Your task to perform on an android device: change the clock display to analog Image 0: 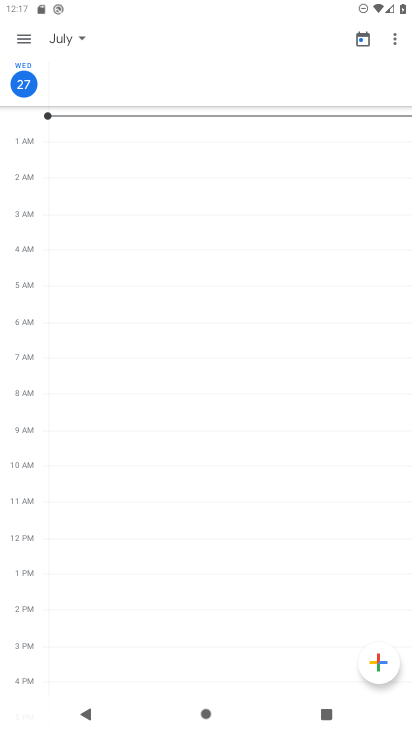
Step 0: press home button
Your task to perform on an android device: change the clock display to analog Image 1: 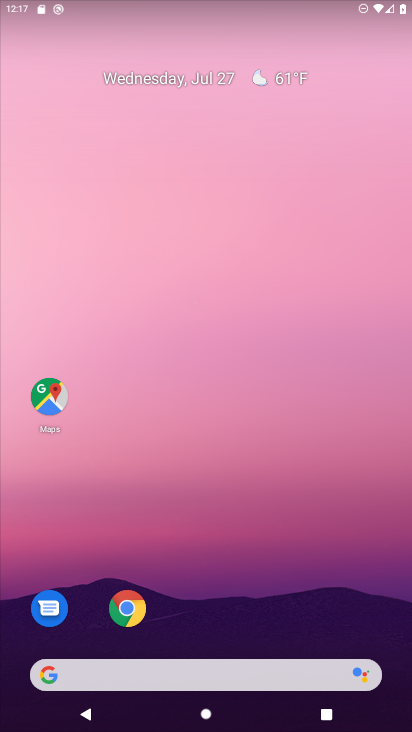
Step 1: drag from (334, 578) to (361, 222)
Your task to perform on an android device: change the clock display to analog Image 2: 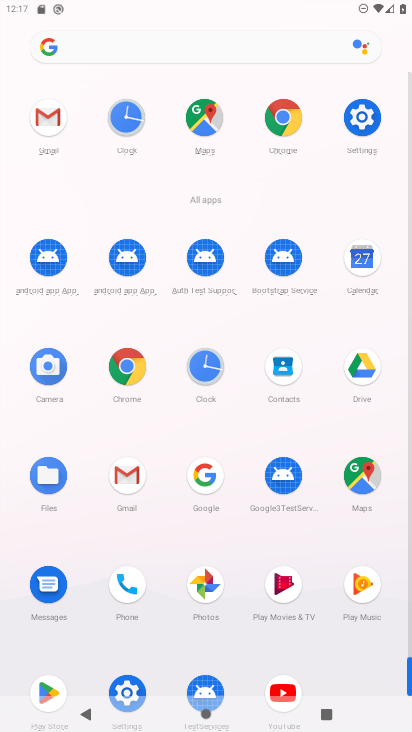
Step 2: click (206, 372)
Your task to perform on an android device: change the clock display to analog Image 3: 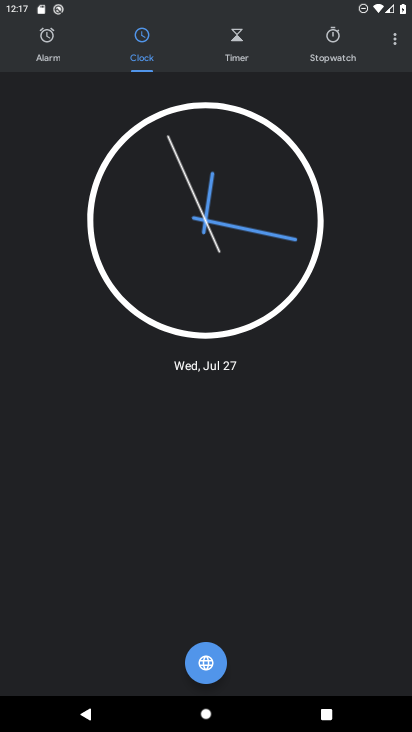
Step 3: click (394, 40)
Your task to perform on an android device: change the clock display to analog Image 4: 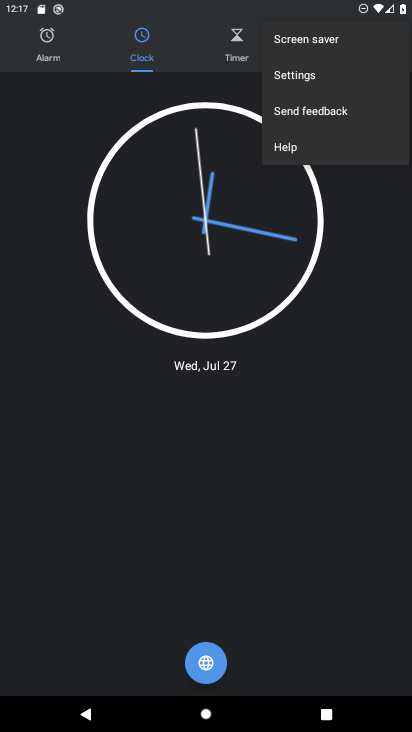
Step 4: click (360, 76)
Your task to perform on an android device: change the clock display to analog Image 5: 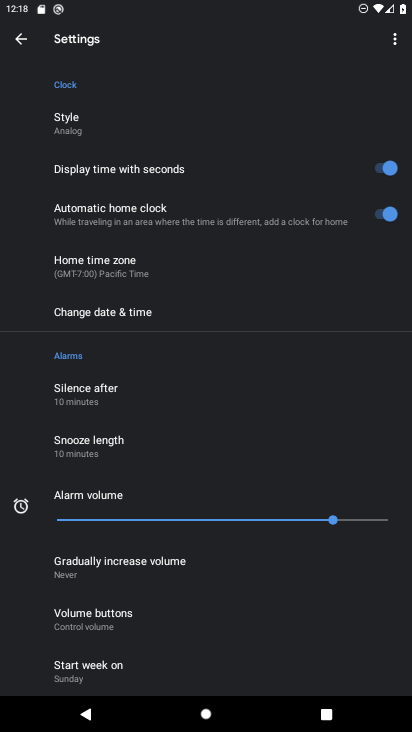
Step 5: click (337, 241)
Your task to perform on an android device: change the clock display to analog Image 6: 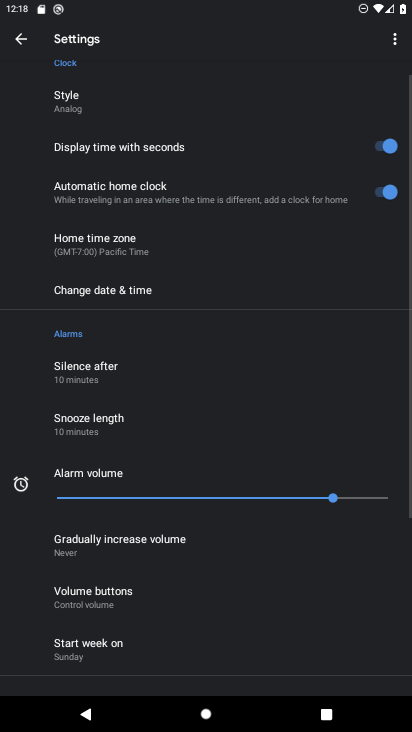
Step 6: drag from (344, 259) to (349, 220)
Your task to perform on an android device: change the clock display to analog Image 7: 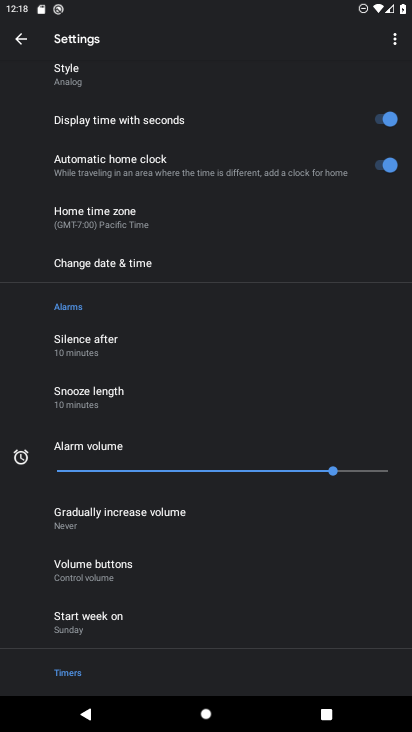
Step 7: click (336, 312)
Your task to perform on an android device: change the clock display to analog Image 8: 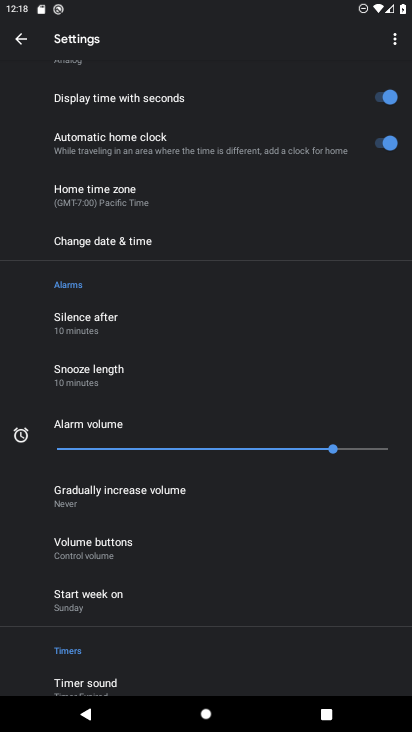
Step 8: task complete